Your task to perform on an android device: Open maps Image 0: 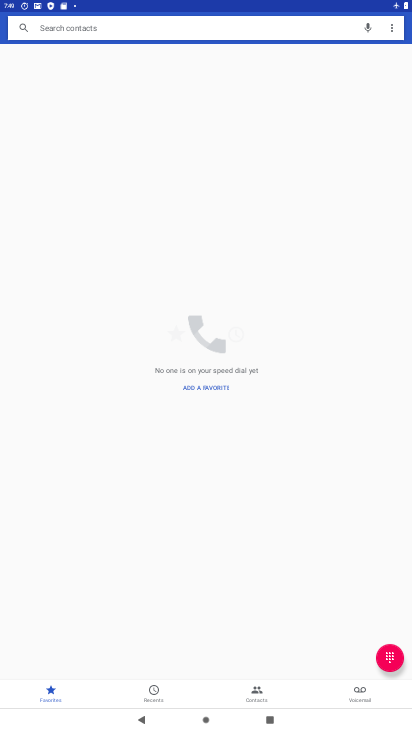
Step 0: press home button
Your task to perform on an android device: Open maps Image 1: 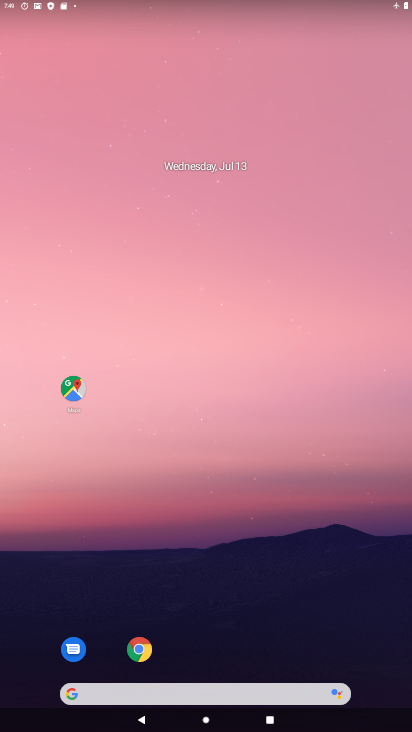
Step 1: click (73, 389)
Your task to perform on an android device: Open maps Image 2: 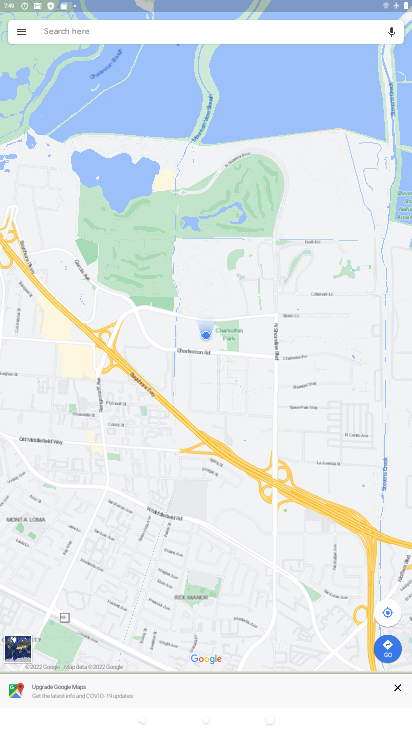
Step 2: task complete